Your task to perform on an android device: Open battery settings Image 0: 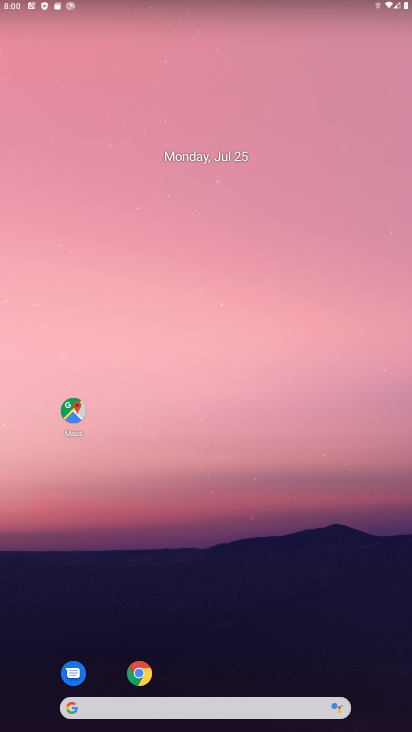
Step 0: drag from (187, 694) to (273, 209)
Your task to perform on an android device: Open battery settings Image 1: 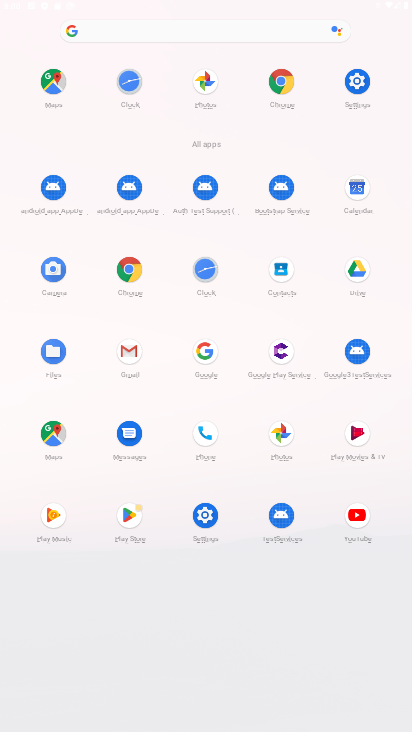
Step 1: click (194, 526)
Your task to perform on an android device: Open battery settings Image 2: 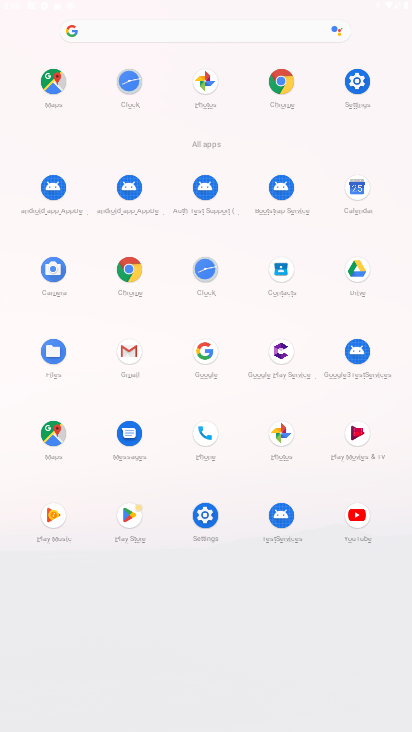
Step 2: click (200, 516)
Your task to perform on an android device: Open battery settings Image 3: 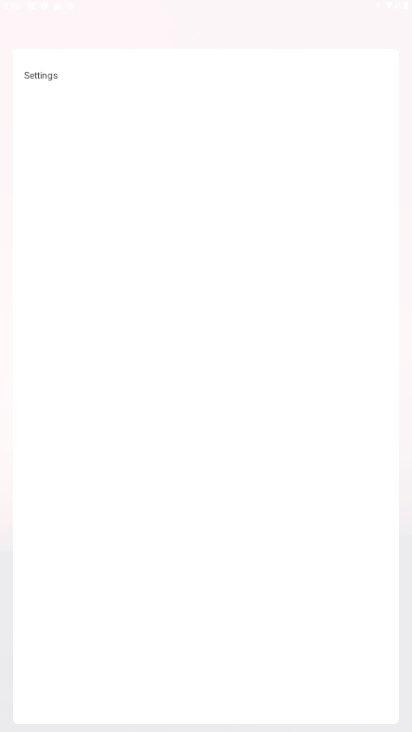
Step 3: click (198, 516)
Your task to perform on an android device: Open battery settings Image 4: 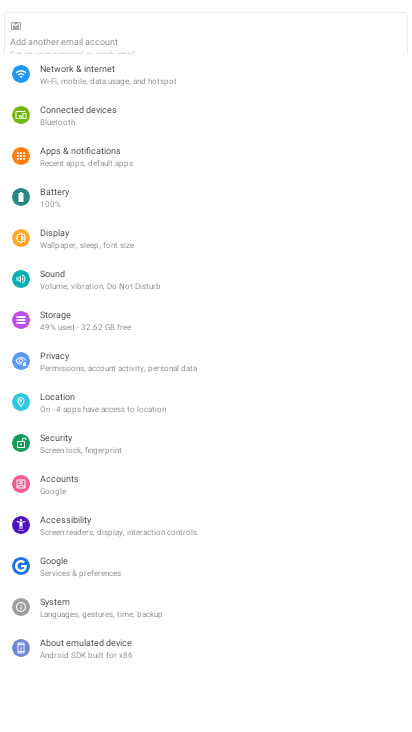
Step 4: click (198, 516)
Your task to perform on an android device: Open battery settings Image 5: 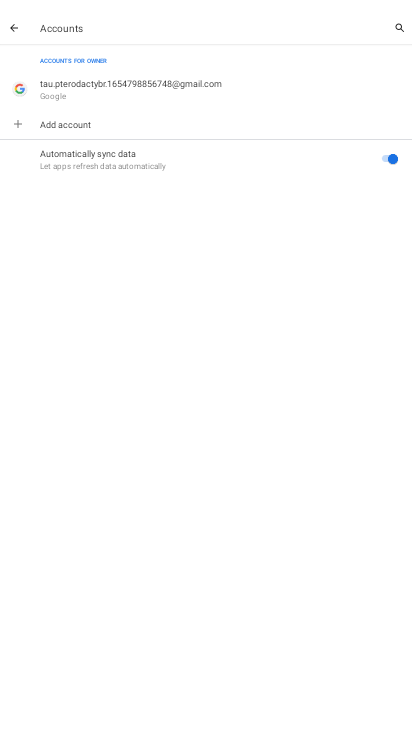
Step 5: click (15, 25)
Your task to perform on an android device: Open battery settings Image 6: 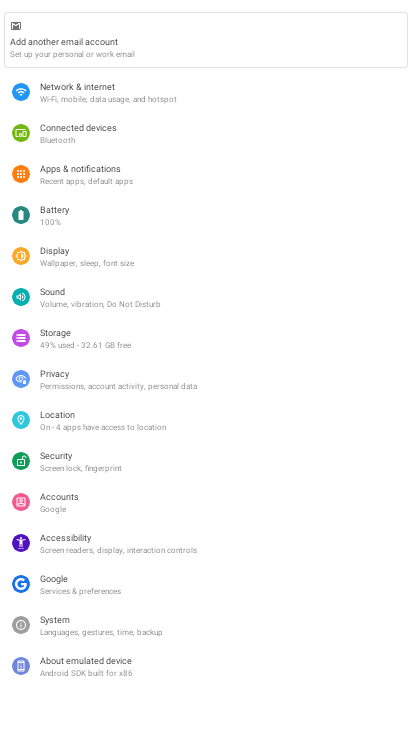
Step 6: click (50, 221)
Your task to perform on an android device: Open battery settings Image 7: 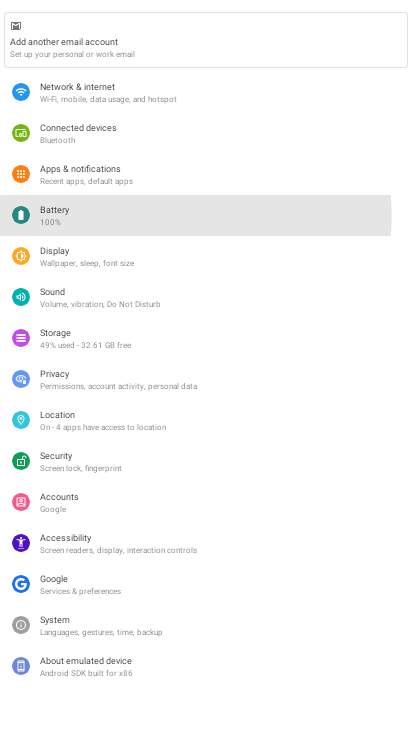
Step 7: click (50, 221)
Your task to perform on an android device: Open battery settings Image 8: 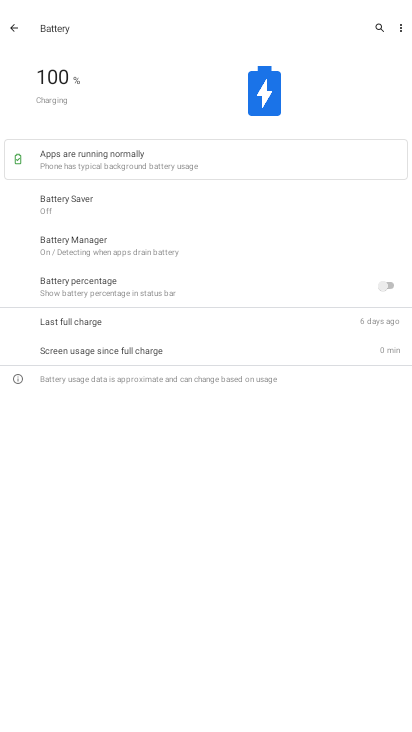
Step 8: task complete